Your task to perform on an android device: Go to Wikipedia Image 0: 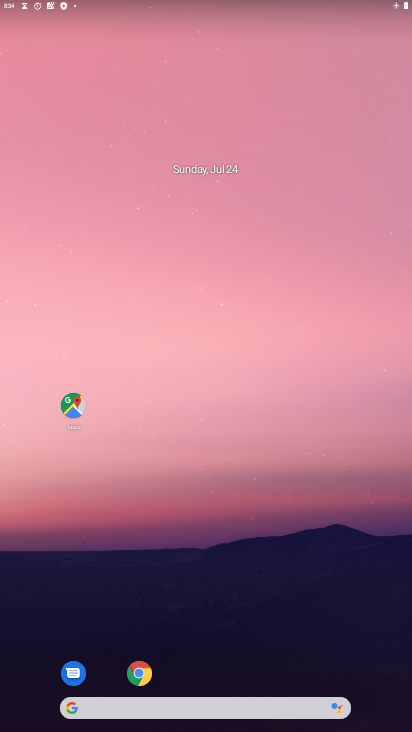
Step 0: drag from (207, 621) to (303, 196)
Your task to perform on an android device: Go to Wikipedia Image 1: 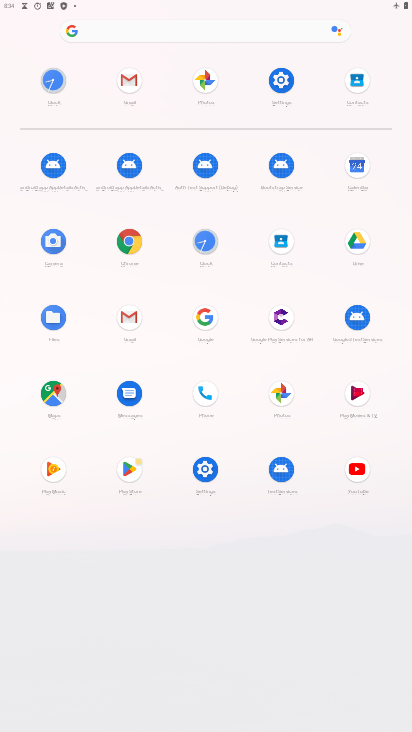
Step 1: click (168, 24)
Your task to perform on an android device: Go to Wikipedia Image 2: 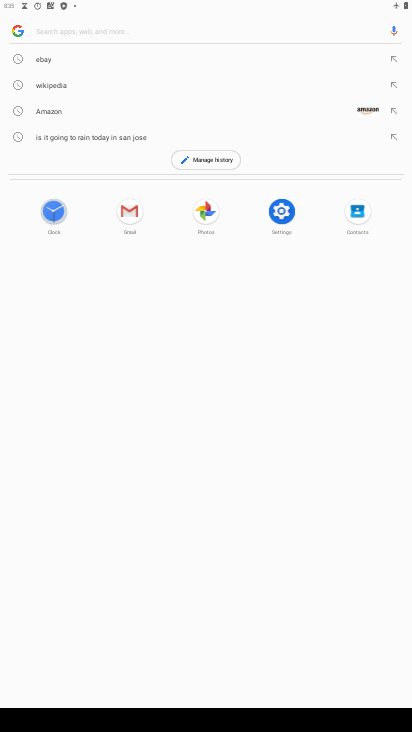
Step 2: click (55, 82)
Your task to perform on an android device: Go to Wikipedia Image 3: 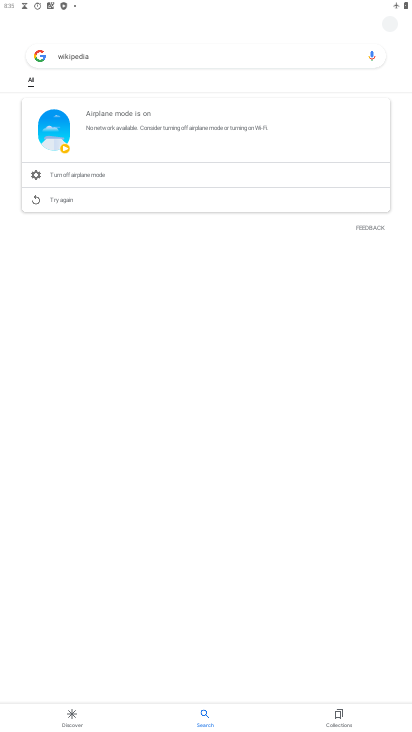
Step 3: task complete